Your task to perform on an android device: Go to eBay Image 0: 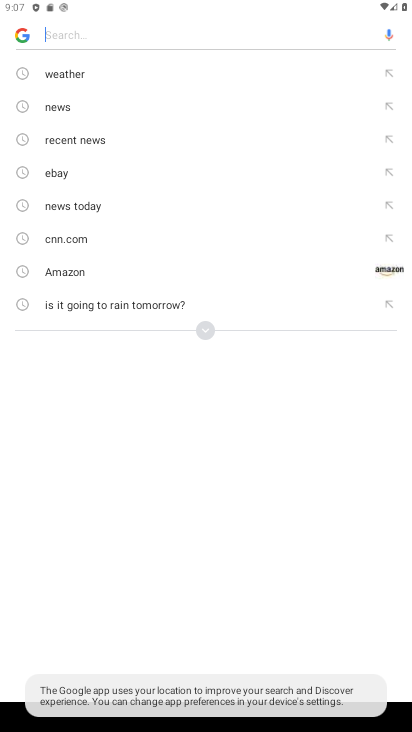
Step 0: press home button
Your task to perform on an android device: Go to eBay Image 1: 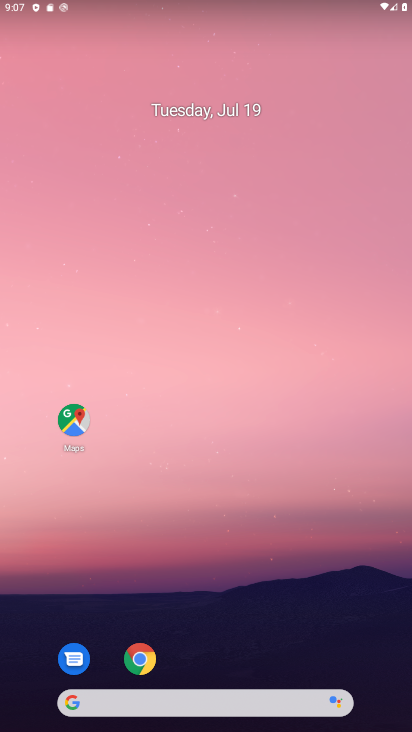
Step 1: click (130, 658)
Your task to perform on an android device: Go to eBay Image 2: 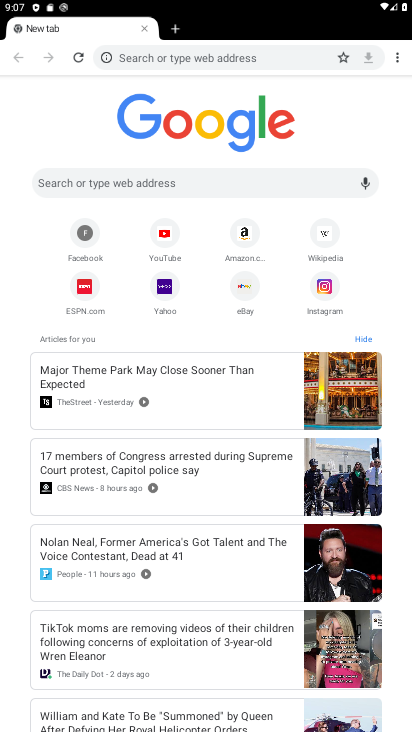
Step 2: click (241, 290)
Your task to perform on an android device: Go to eBay Image 3: 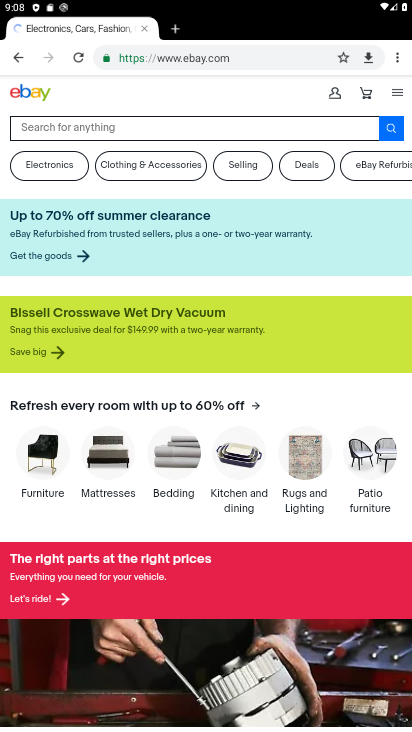
Step 3: task complete